Your task to perform on an android device: open app "Walmart Shopping & Grocery" (install if not already installed) and enter user name: "Hans@icloud.com" and password: "executing" Image 0: 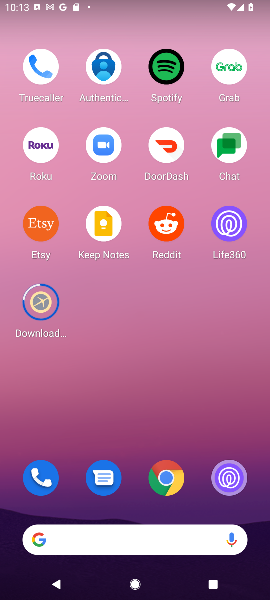
Step 0: drag from (138, 514) to (141, 25)
Your task to perform on an android device: open app "Walmart Shopping & Grocery" (install if not already installed) and enter user name: "Hans@icloud.com" and password: "executing" Image 1: 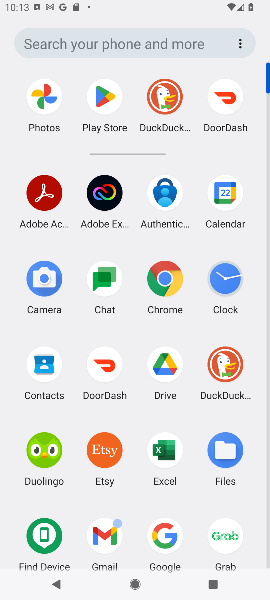
Step 1: click (103, 88)
Your task to perform on an android device: open app "Walmart Shopping & Grocery" (install if not already installed) and enter user name: "Hans@icloud.com" and password: "executing" Image 2: 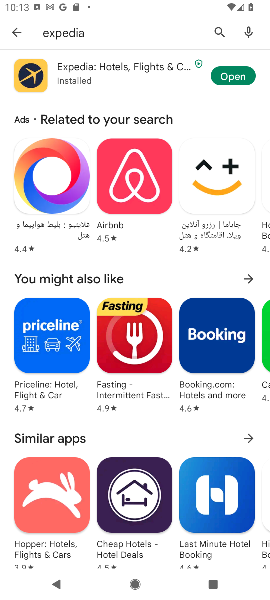
Step 2: click (217, 36)
Your task to perform on an android device: open app "Walmart Shopping & Grocery" (install if not already installed) and enter user name: "Hans@icloud.com" and password: "executing" Image 3: 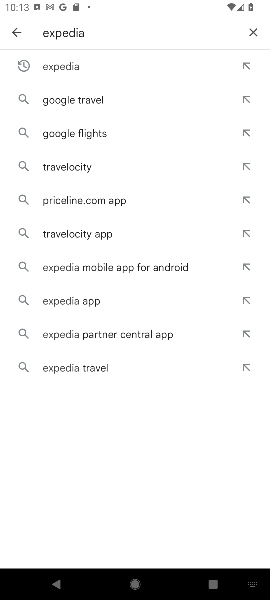
Step 3: click (247, 36)
Your task to perform on an android device: open app "Walmart Shopping & Grocery" (install if not already installed) and enter user name: "Hans@icloud.com" and password: "executing" Image 4: 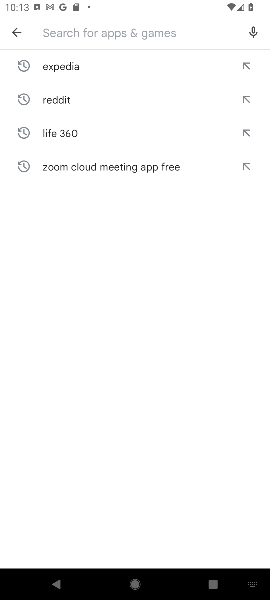
Step 4: type "walmart"
Your task to perform on an android device: open app "Walmart Shopping & Grocery" (install if not already installed) and enter user name: "Hans@icloud.com" and password: "executing" Image 5: 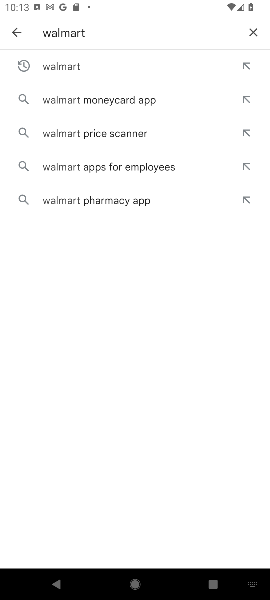
Step 5: click (94, 69)
Your task to perform on an android device: open app "Walmart Shopping & Grocery" (install if not already installed) and enter user name: "Hans@icloud.com" and password: "executing" Image 6: 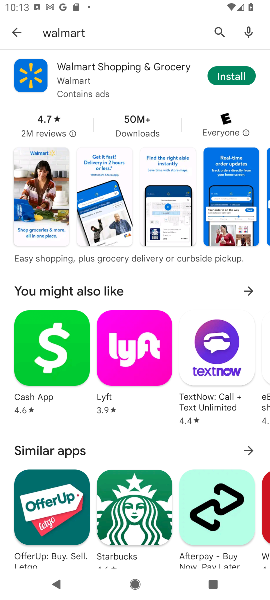
Step 6: click (220, 80)
Your task to perform on an android device: open app "Walmart Shopping & Grocery" (install if not already installed) and enter user name: "Hans@icloud.com" and password: "executing" Image 7: 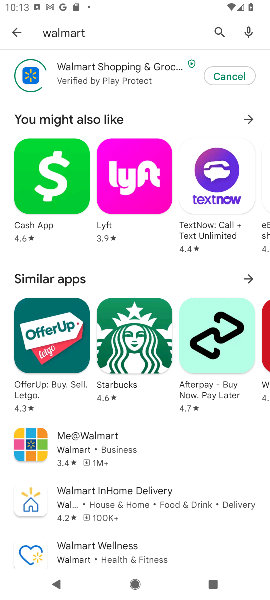
Step 7: task complete